Your task to perform on an android device: star an email in the gmail app Image 0: 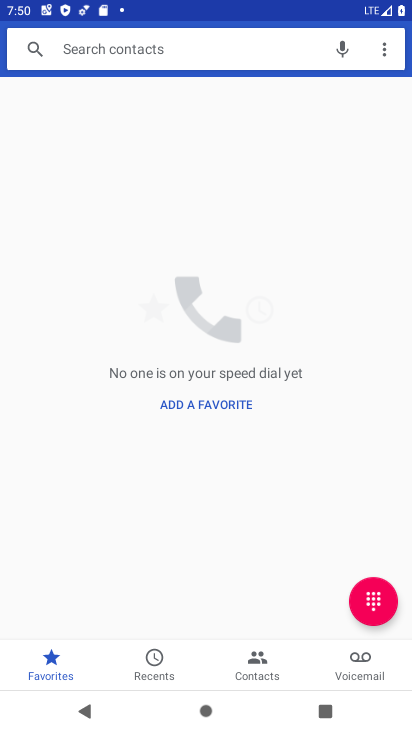
Step 0: press back button
Your task to perform on an android device: star an email in the gmail app Image 1: 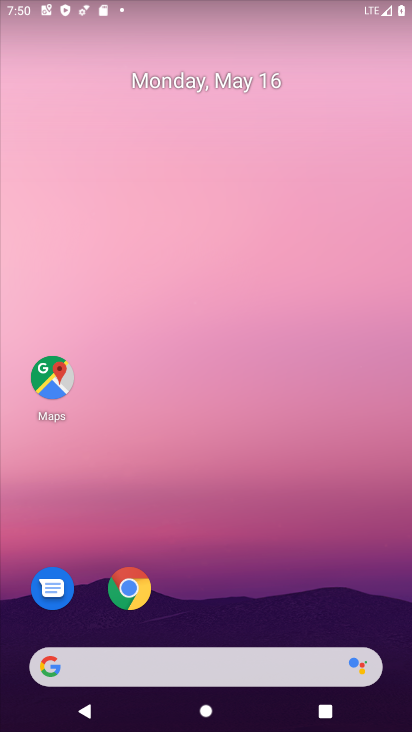
Step 1: drag from (266, 570) to (216, 43)
Your task to perform on an android device: star an email in the gmail app Image 2: 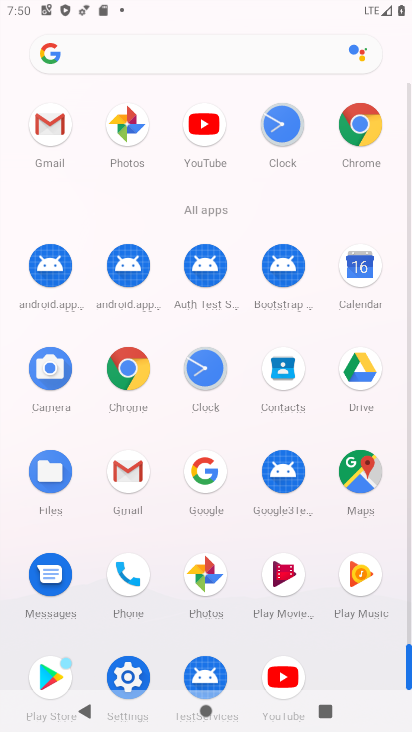
Step 2: click (126, 469)
Your task to perform on an android device: star an email in the gmail app Image 3: 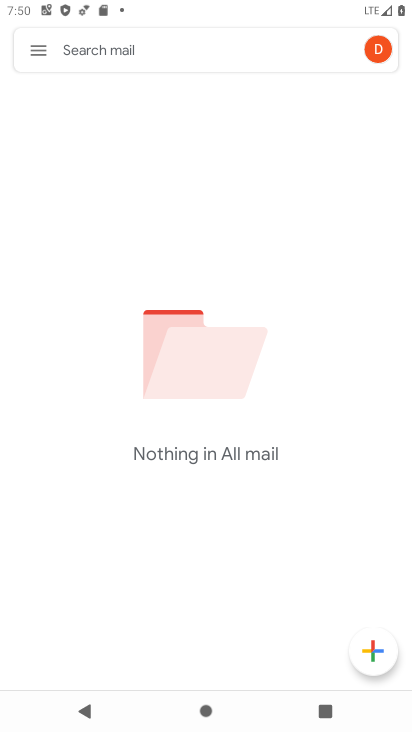
Step 3: click (34, 44)
Your task to perform on an android device: star an email in the gmail app Image 4: 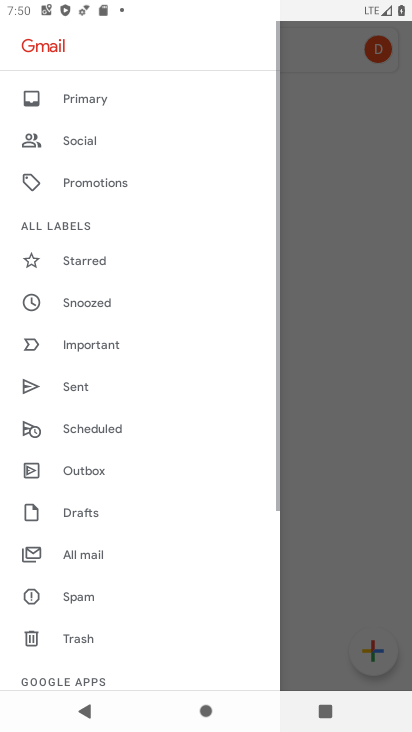
Step 4: drag from (135, 592) to (197, 131)
Your task to perform on an android device: star an email in the gmail app Image 5: 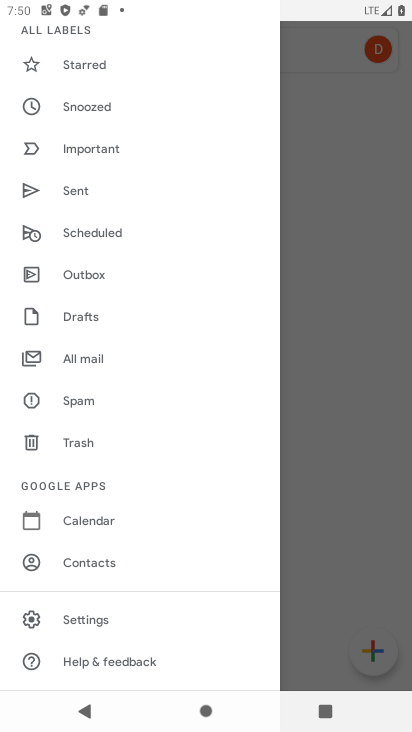
Step 5: click (85, 614)
Your task to perform on an android device: star an email in the gmail app Image 6: 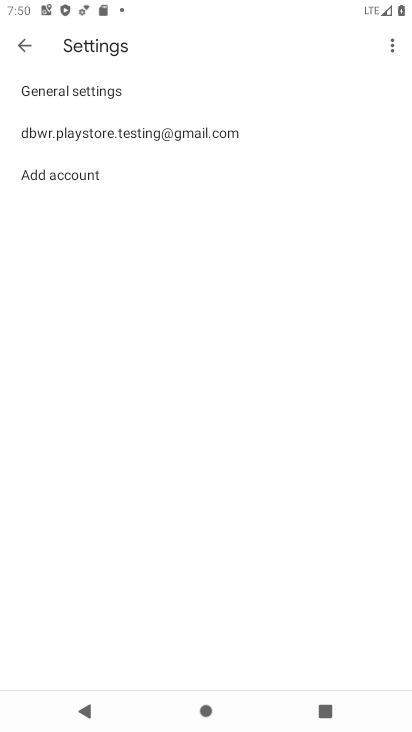
Step 6: click (154, 126)
Your task to perform on an android device: star an email in the gmail app Image 7: 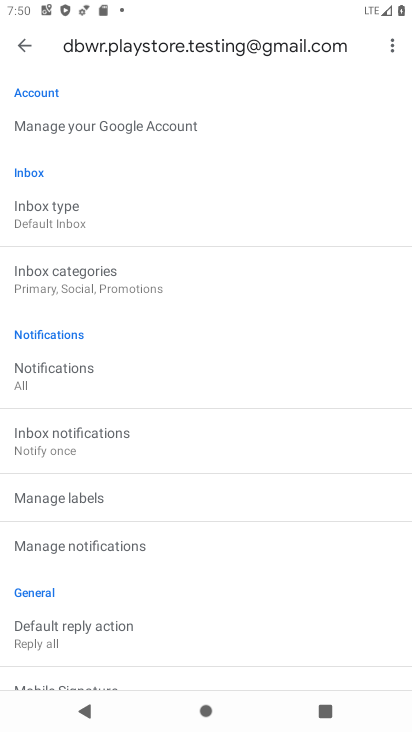
Step 7: click (25, 46)
Your task to perform on an android device: star an email in the gmail app Image 8: 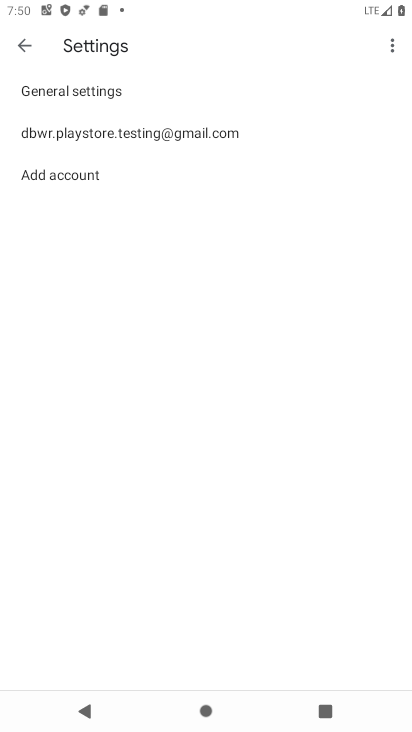
Step 8: click (25, 46)
Your task to perform on an android device: star an email in the gmail app Image 9: 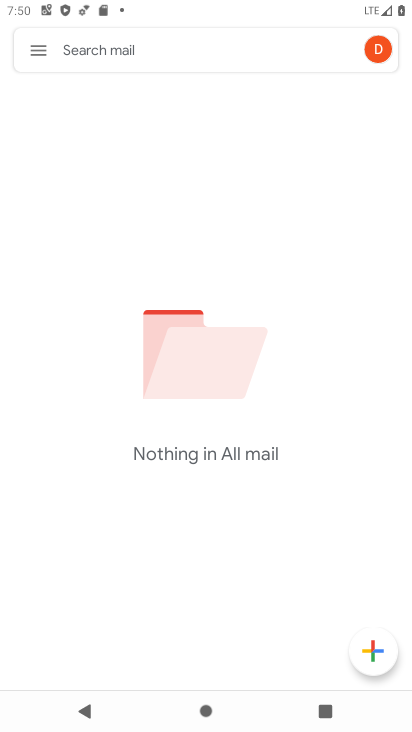
Step 9: click (29, 44)
Your task to perform on an android device: star an email in the gmail app Image 10: 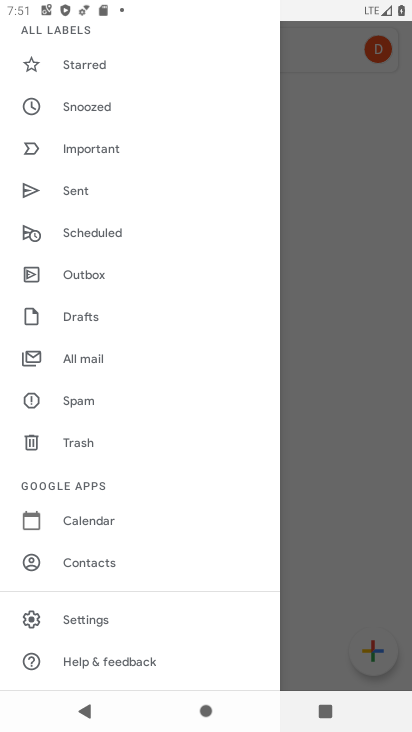
Step 10: drag from (137, 119) to (179, 419)
Your task to perform on an android device: star an email in the gmail app Image 11: 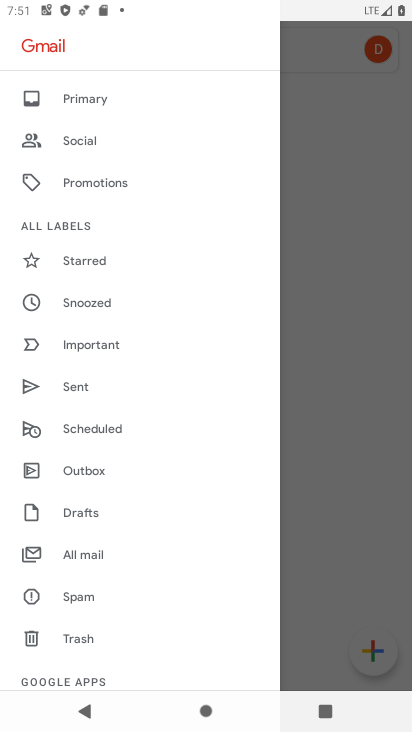
Step 11: click (113, 259)
Your task to perform on an android device: star an email in the gmail app Image 12: 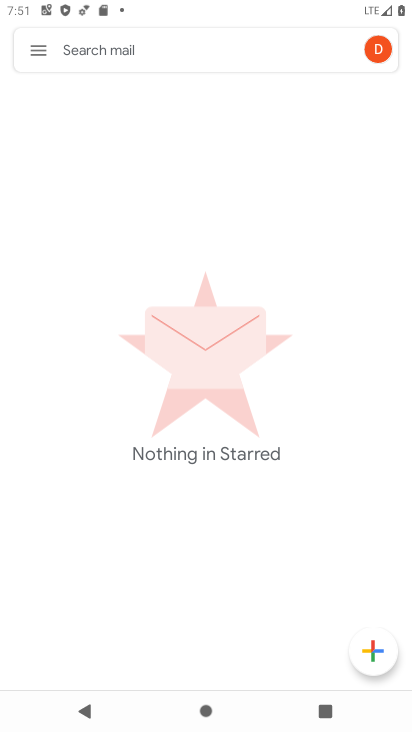
Step 12: task complete